Your task to perform on an android device: snooze an email in the gmail app Image 0: 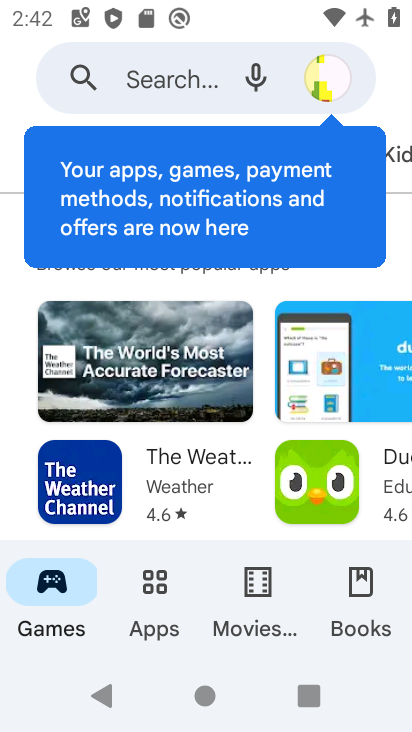
Step 0: press home button
Your task to perform on an android device: snooze an email in the gmail app Image 1: 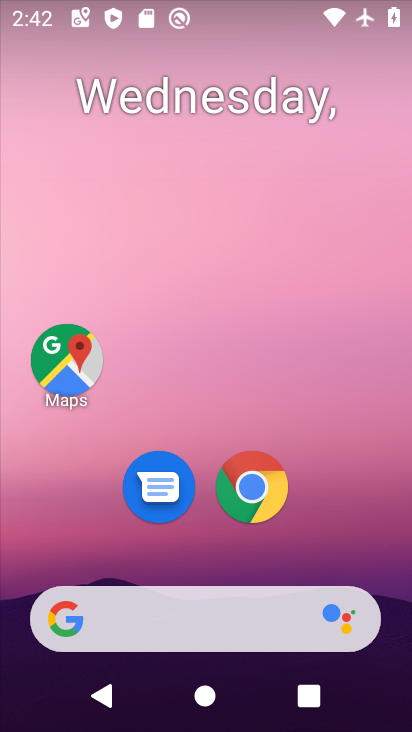
Step 1: drag from (323, 544) to (336, 88)
Your task to perform on an android device: snooze an email in the gmail app Image 2: 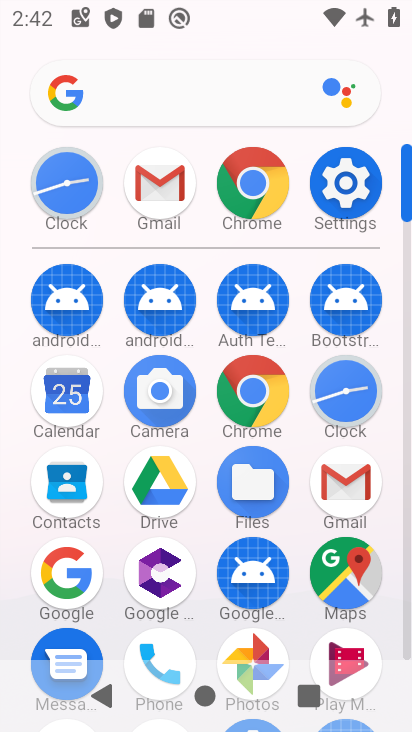
Step 2: click (168, 190)
Your task to perform on an android device: snooze an email in the gmail app Image 3: 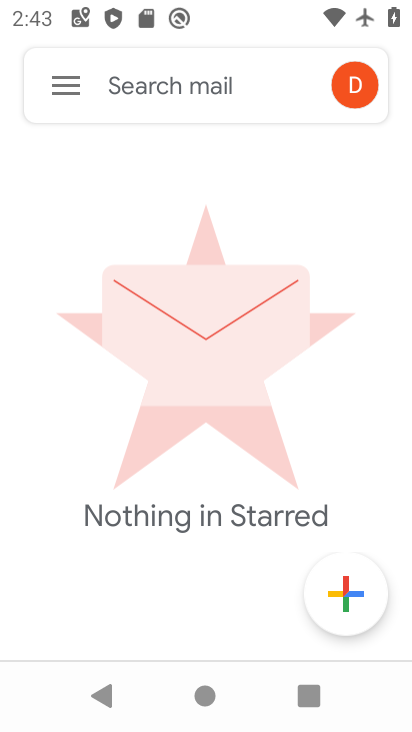
Step 3: click (59, 66)
Your task to perform on an android device: snooze an email in the gmail app Image 4: 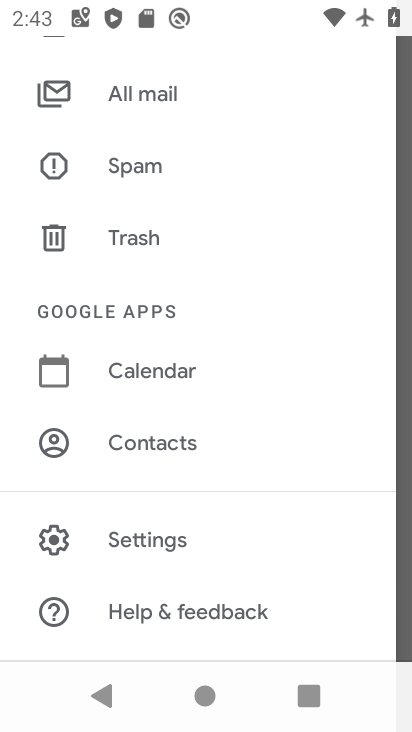
Step 4: click (82, 99)
Your task to perform on an android device: snooze an email in the gmail app Image 5: 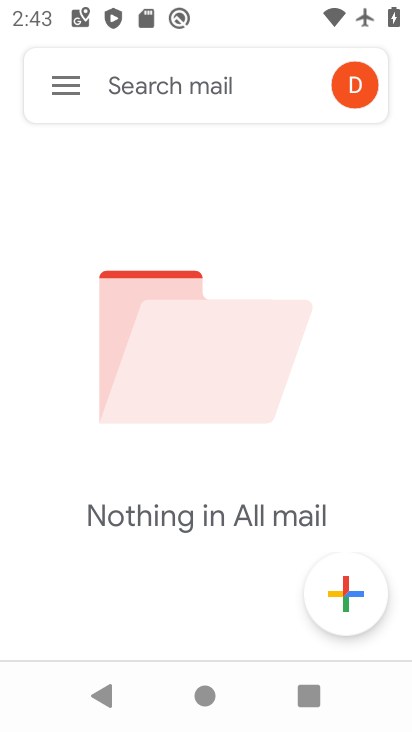
Step 5: task complete